Your task to perform on an android device: delete location history Image 0: 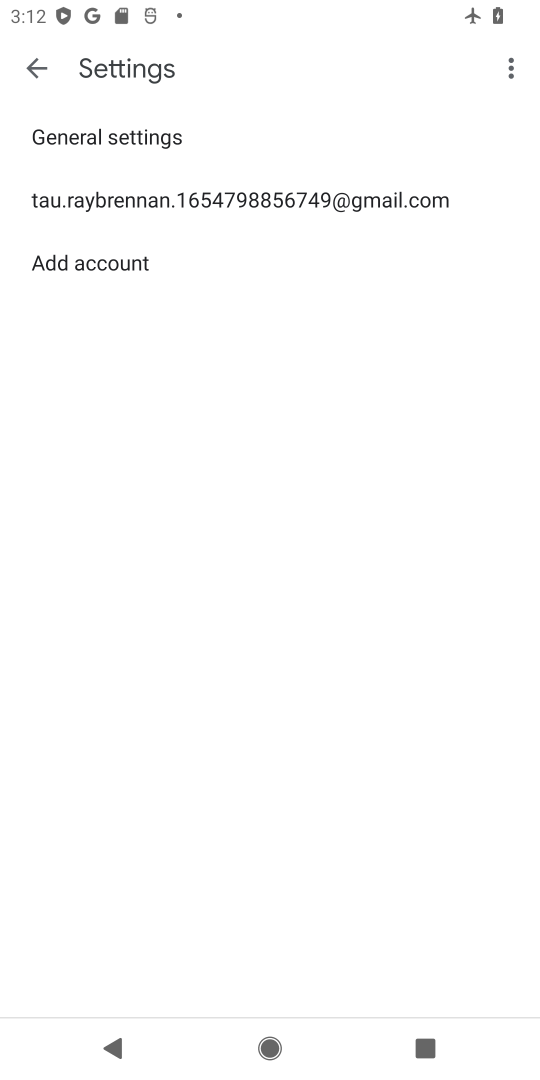
Step 0: press home button
Your task to perform on an android device: delete location history Image 1: 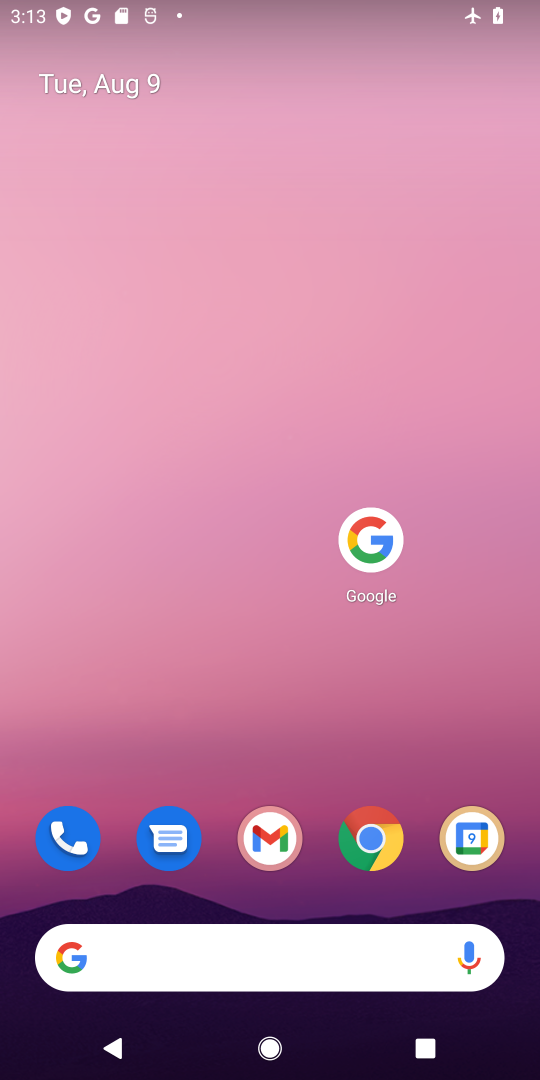
Step 1: drag from (235, 699) to (314, 3)
Your task to perform on an android device: delete location history Image 2: 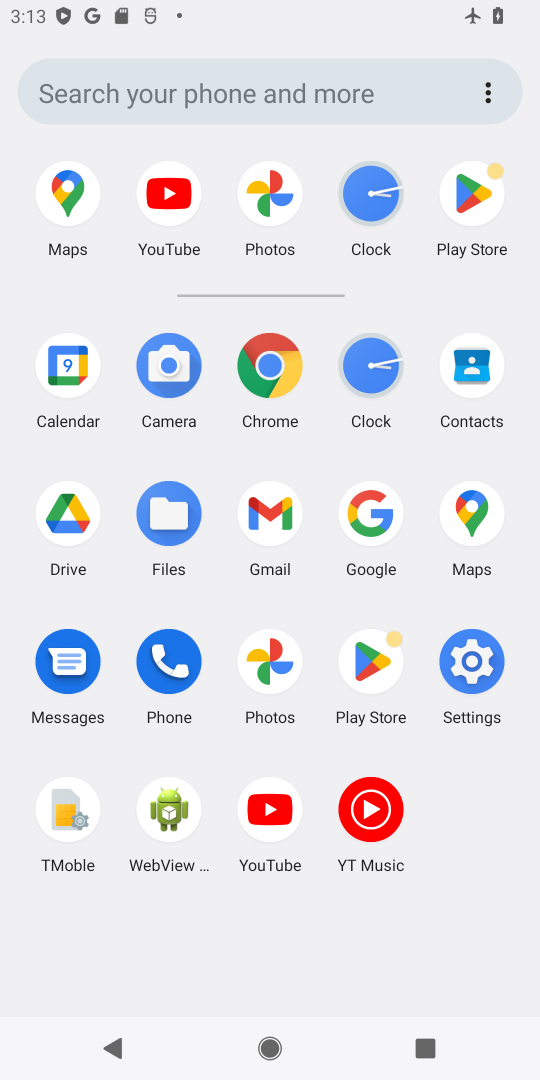
Step 2: click (460, 502)
Your task to perform on an android device: delete location history Image 3: 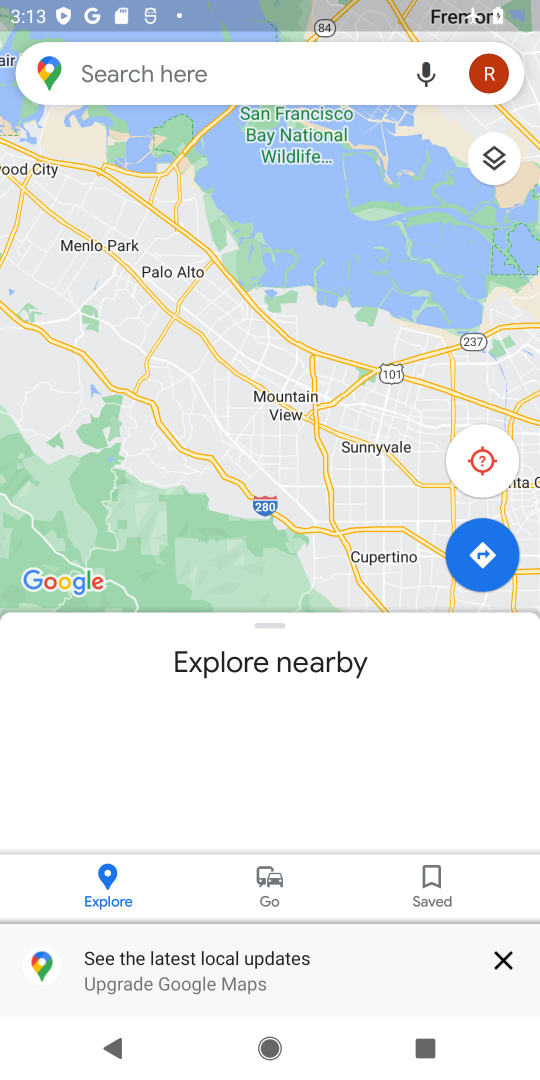
Step 3: click (490, 74)
Your task to perform on an android device: delete location history Image 4: 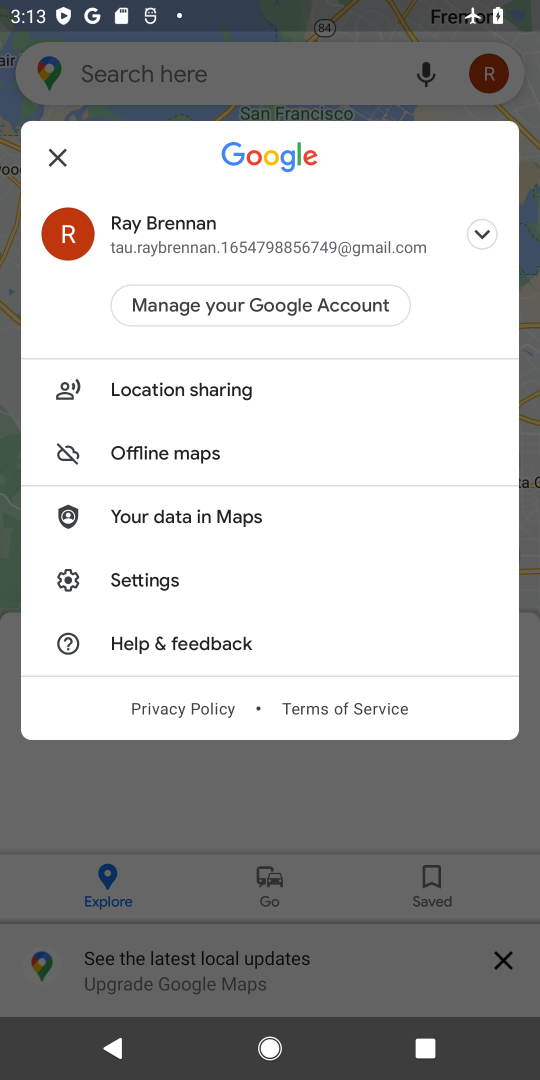
Step 4: click (186, 585)
Your task to perform on an android device: delete location history Image 5: 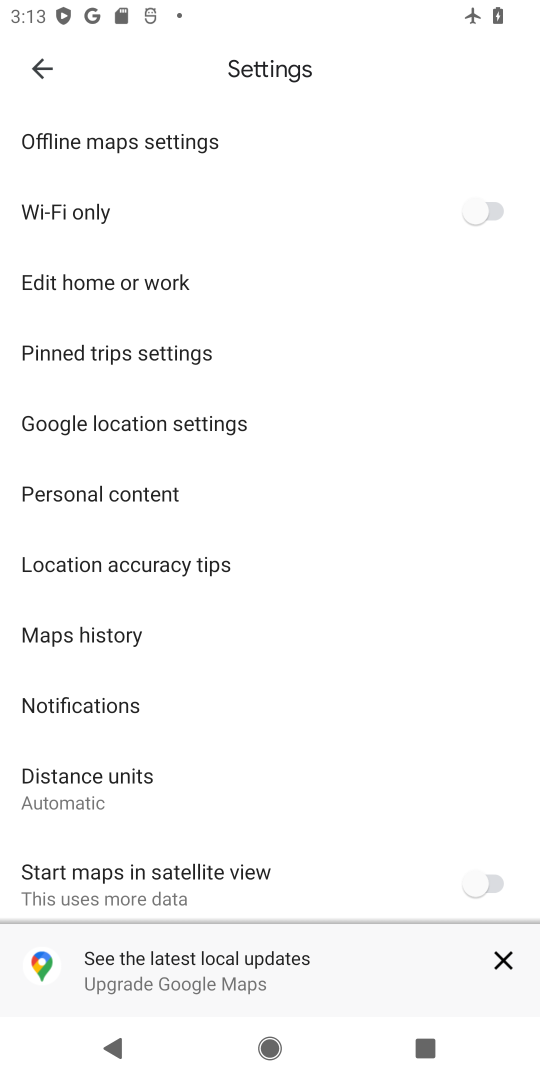
Step 5: click (55, 654)
Your task to perform on an android device: delete location history Image 6: 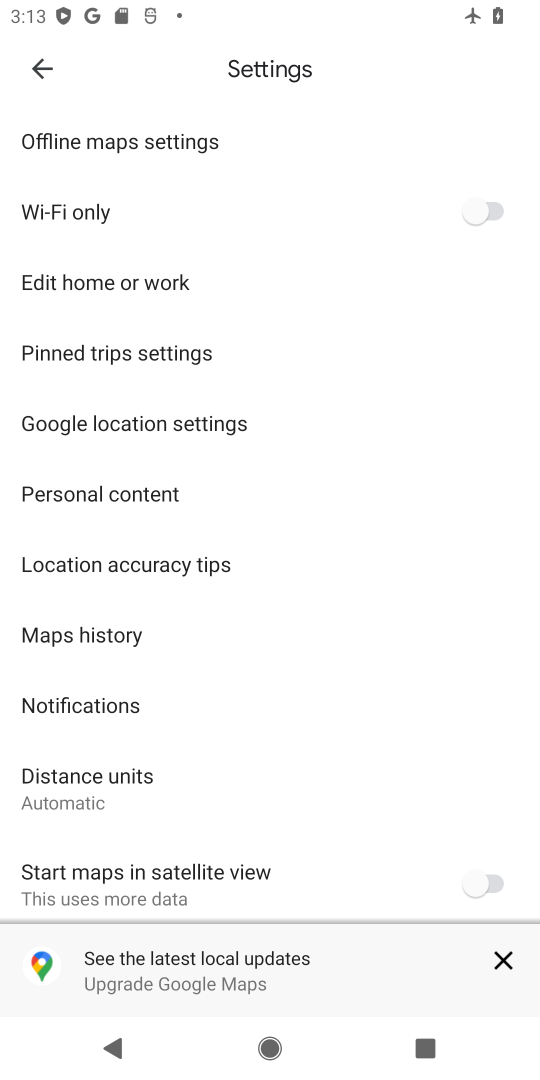
Step 6: task complete